Your task to perform on an android device: turn off picture-in-picture Image 0: 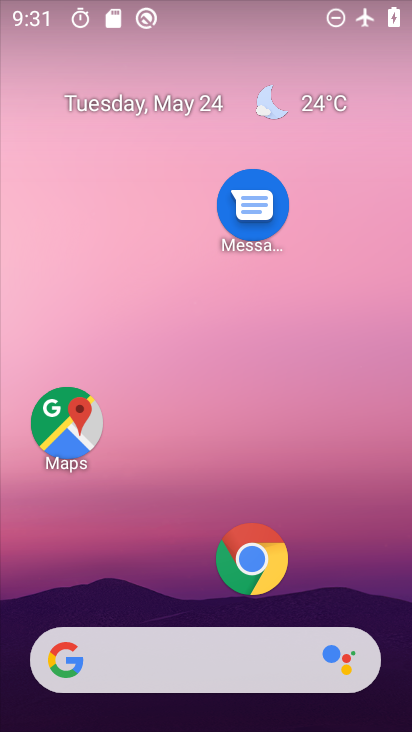
Step 0: click (242, 547)
Your task to perform on an android device: turn off picture-in-picture Image 1: 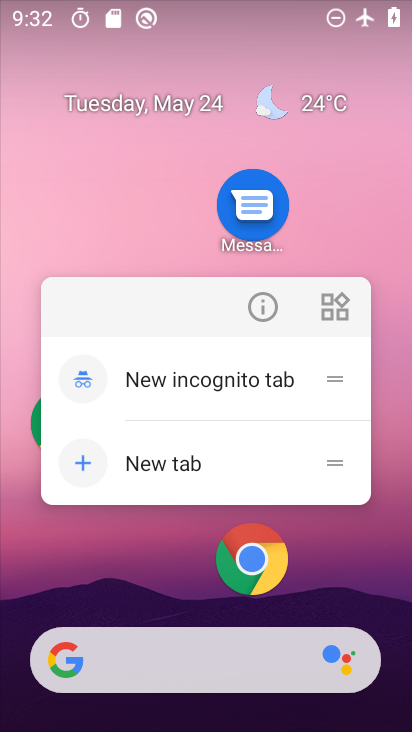
Step 1: click (272, 316)
Your task to perform on an android device: turn off picture-in-picture Image 2: 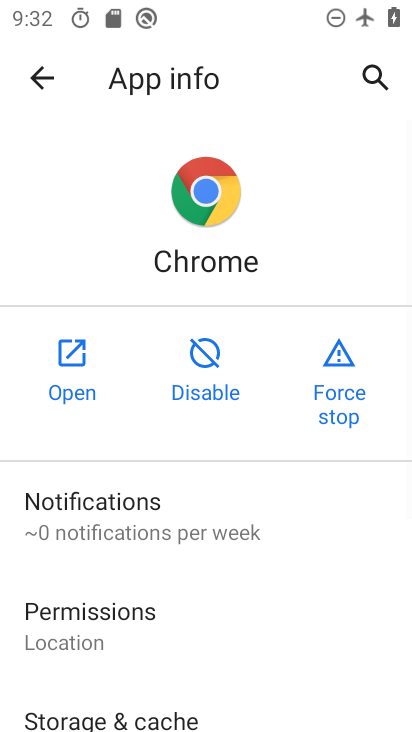
Step 2: drag from (184, 645) to (194, 319)
Your task to perform on an android device: turn off picture-in-picture Image 3: 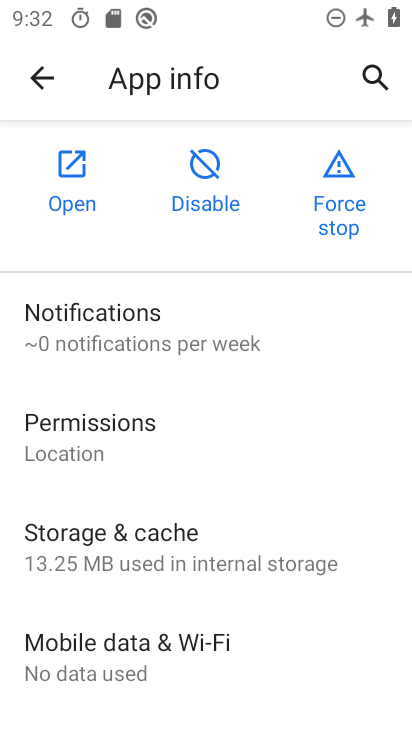
Step 3: drag from (175, 613) to (202, 398)
Your task to perform on an android device: turn off picture-in-picture Image 4: 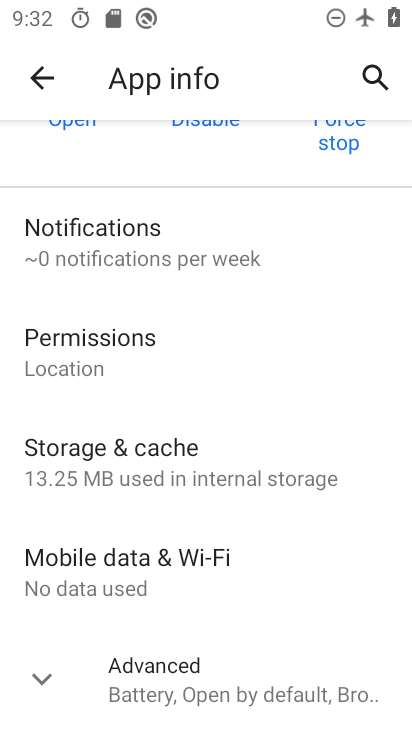
Step 4: click (203, 689)
Your task to perform on an android device: turn off picture-in-picture Image 5: 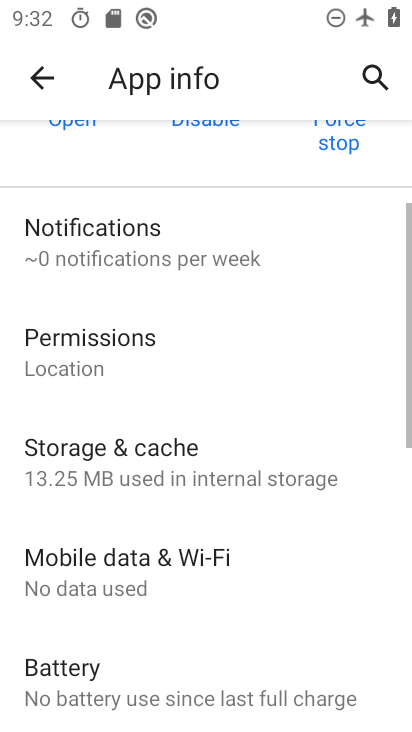
Step 5: drag from (202, 677) to (230, 348)
Your task to perform on an android device: turn off picture-in-picture Image 6: 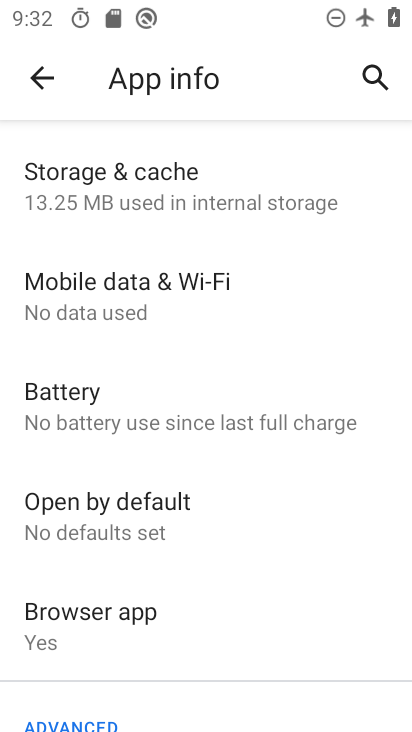
Step 6: drag from (152, 641) to (208, 371)
Your task to perform on an android device: turn off picture-in-picture Image 7: 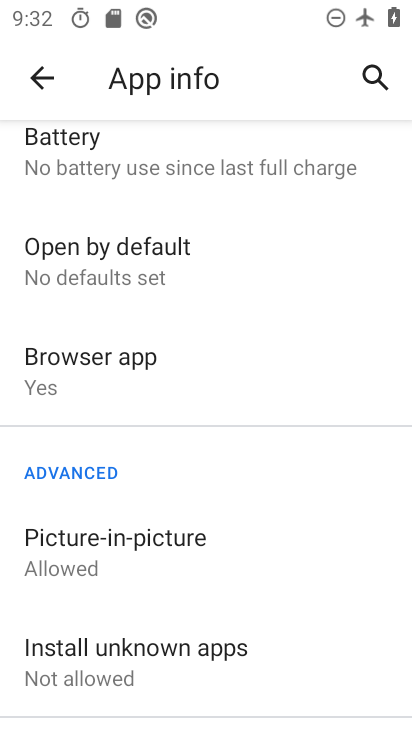
Step 7: click (168, 563)
Your task to perform on an android device: turn off picture-in-picture Image 8: 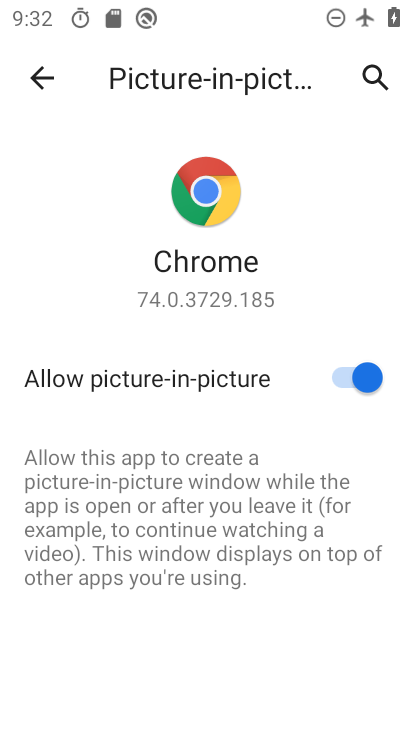
Step 8: click (346, 384)
Your task to perform on an android device: turn off picture-in-picture Image 9: 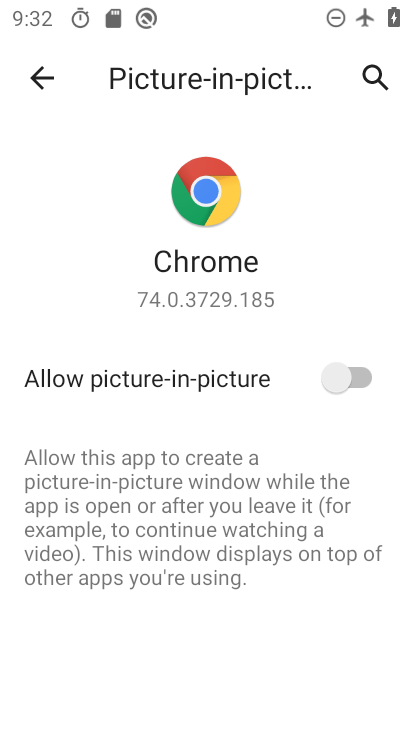
Step 9: task complete